Your task to perform on an android device: check android version Image 0: 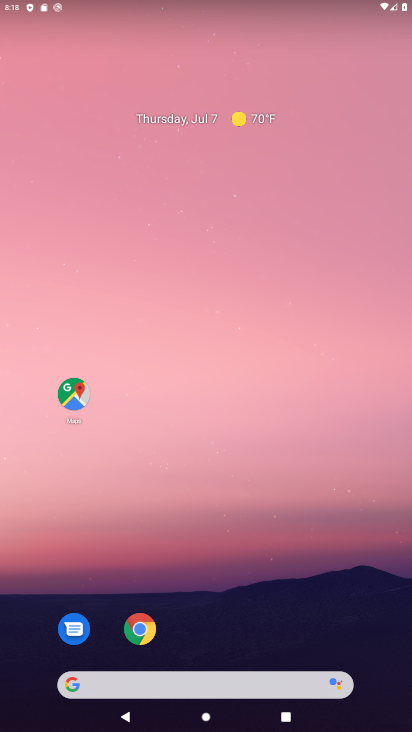
Step 0: drag from (229, 592) to (309, 148)
Your task to perform on an android device: check android version Image 1: 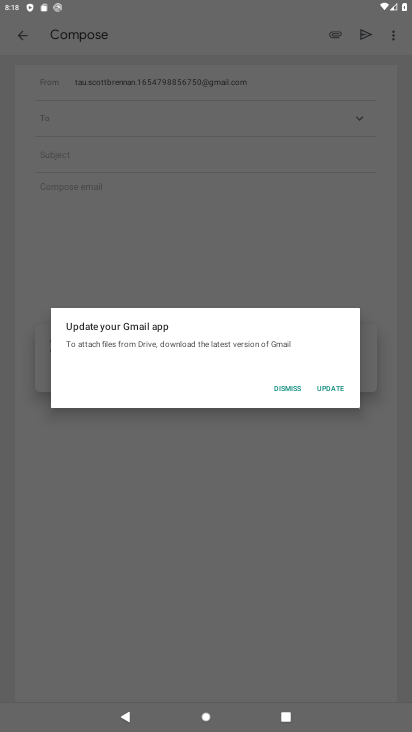
Step 1: press home button
Your task to perform on an android device: check android version Image 2: 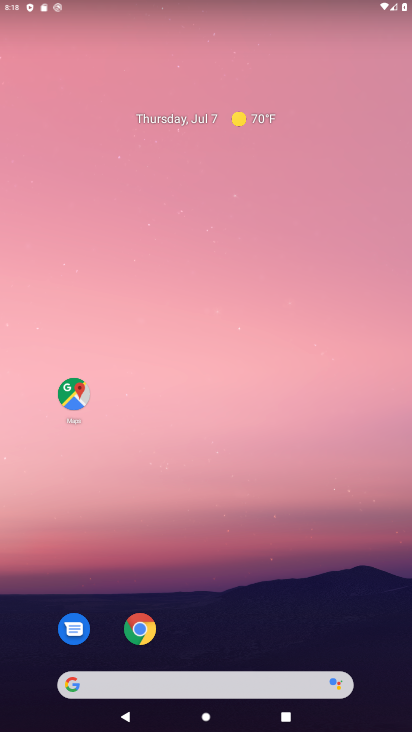
Step 2: drag from (191, 668) to (276, 134)
Your task to perform on an android device: check android version Image 3: 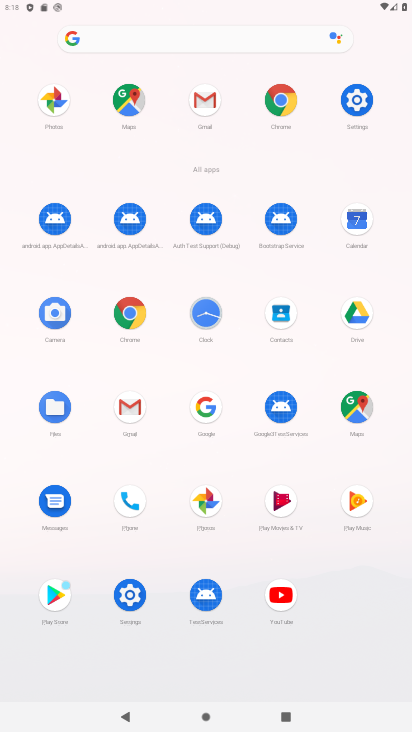
Step 3: click (137, 602)
Your task to perform on an android device: check android version Image 4: 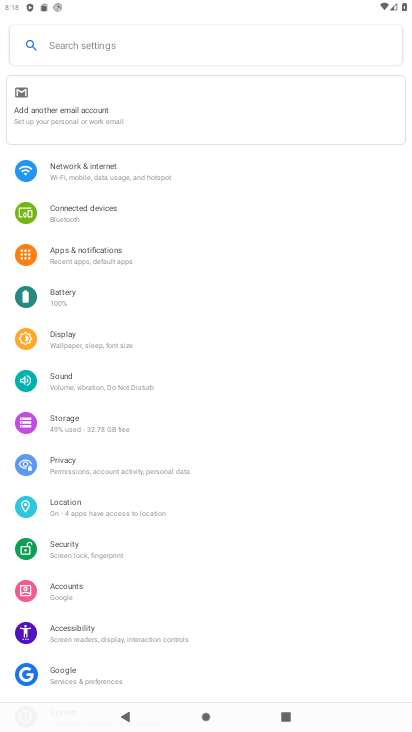
Step 4: drag from (181, 687) to (286, 195)
Your task to perform on an android device: check android version Image 5: 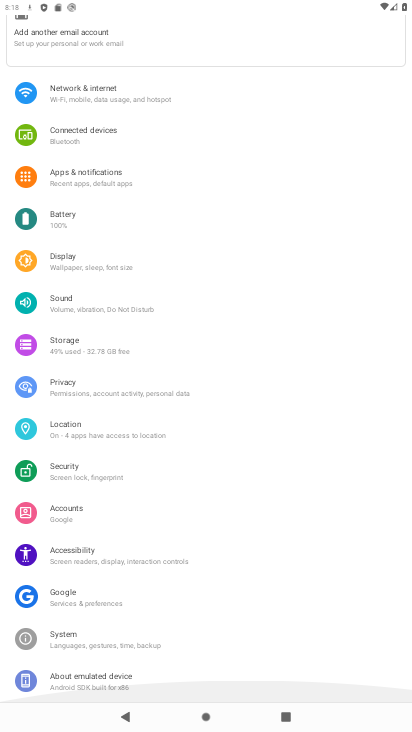
Step 5: click (160, 671)
Your task to perform on an android device: check android version Image 6: 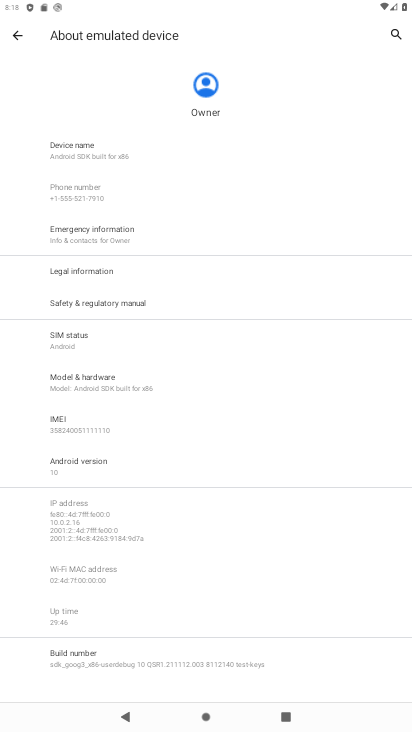
Step 6: click (96, 467)
Your task to perform on an android device: check android version Image 7: 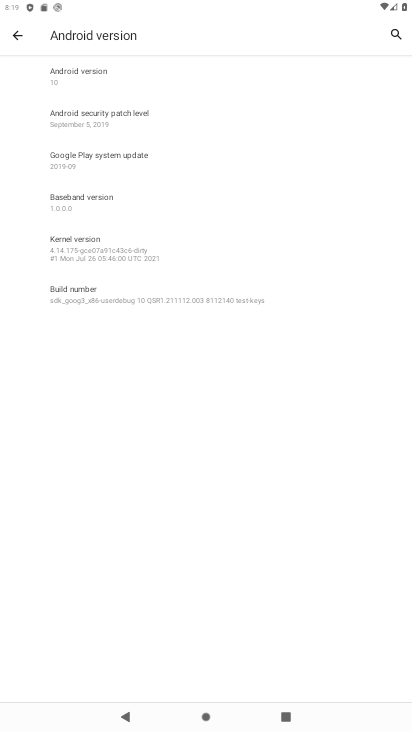
Step 7: task complete